Your task to perform on an android device: open the mobile data screen to see how much data has been used Image 0: 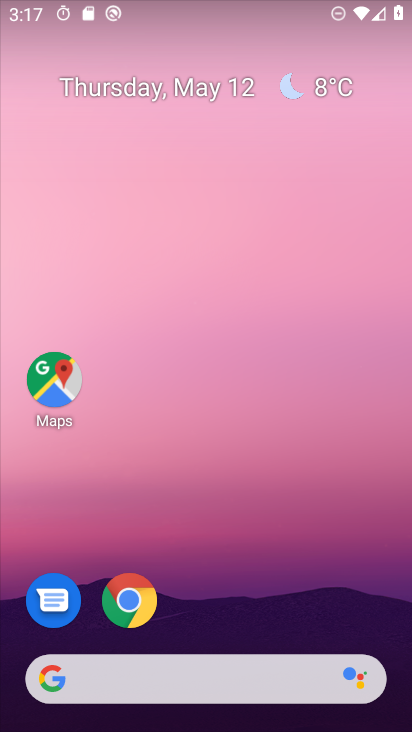
Step 0: drag from (217, 723) to (205, 177)
Your task to perform on an android device: open the mobile data screen to see how much data has been used Image 1: 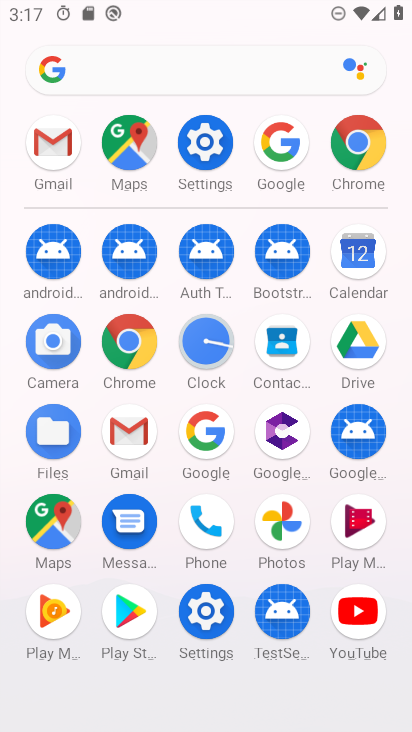
Step 1: click (204, 143)
Your task to perform on an android device: open the mobile data screen to see how much data has been used Image 2: 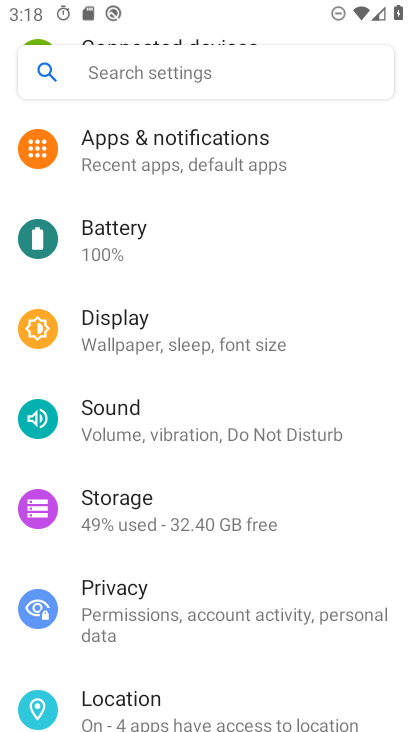
Step 2: drag from (238, 135) to (213, 445)
Your task to perform on an android device: open the mobile data screen to see how much data has been used Image 3: 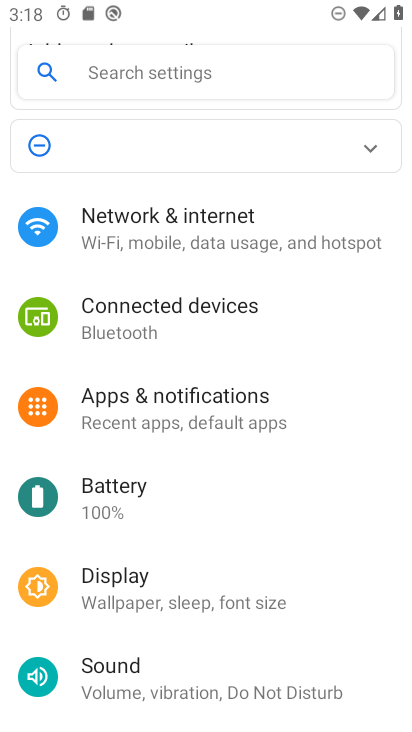
Step 3: click (180, 219)
Your task to perform on an android device: open the mobile data screen to see how much data has been used Image 4: 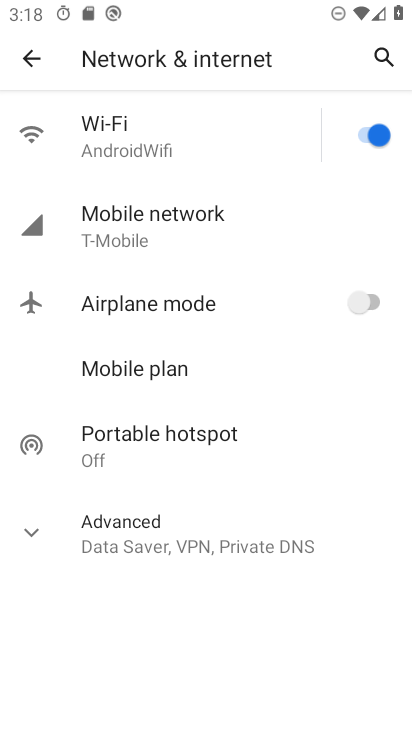
Step 4: click (155, 211)
Your task to perform on an android device: open the mobile data screen to see how much data has been used Image 5: 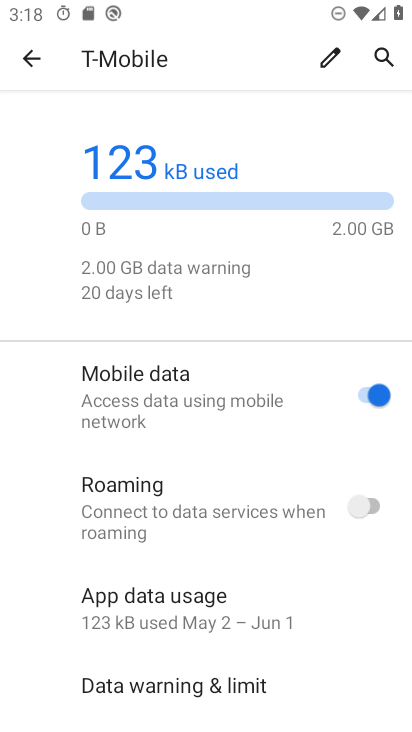
Step 5: click (146, 602)
Your task to perform on an android device: open the mobile data screen to see how much data has been used Image 6: 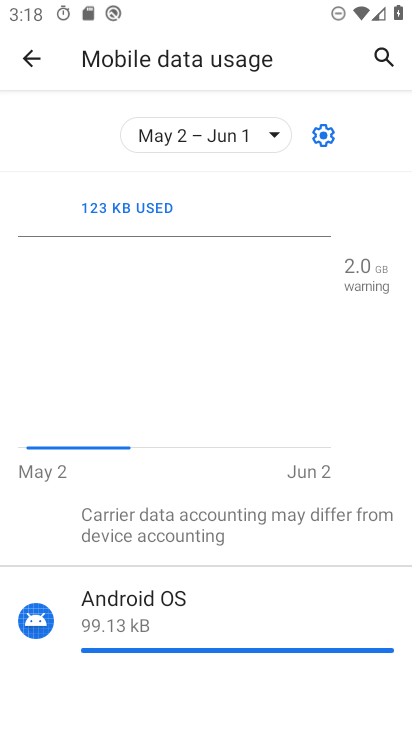
Step 6: task complete